Your task to perform on an android device: Search for seafood restaurants on Google Maps Image 0: 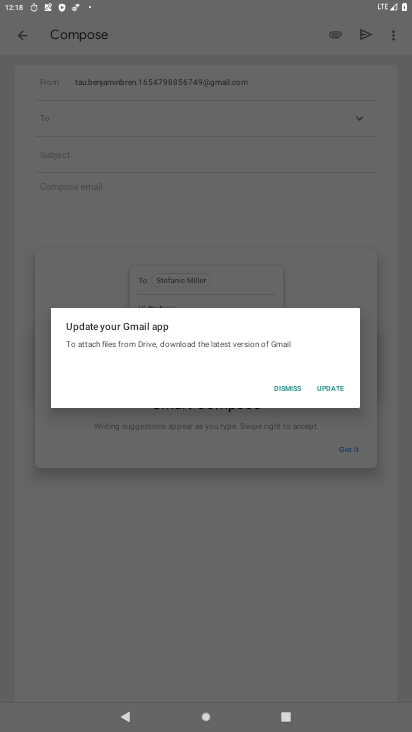
Step 0: press home button
Your task to perform on an android device: Search for seafood restaurants on Google Maps Image 1: 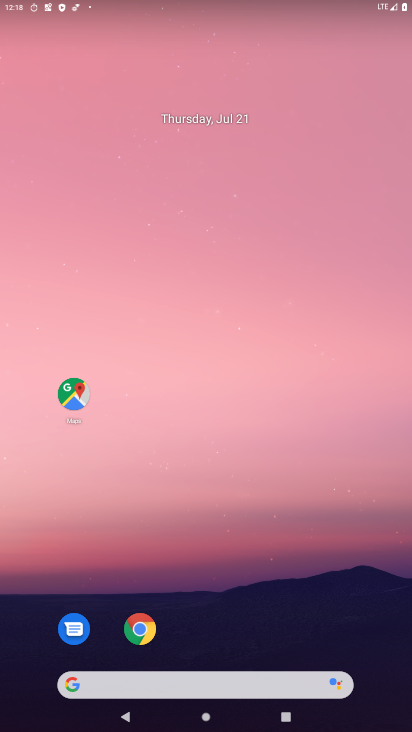
Step 1: drag from (277, 695) to (327, 22)
Your task to perform on an android device: Search for seafood restaurants on Google Maps Image 2: 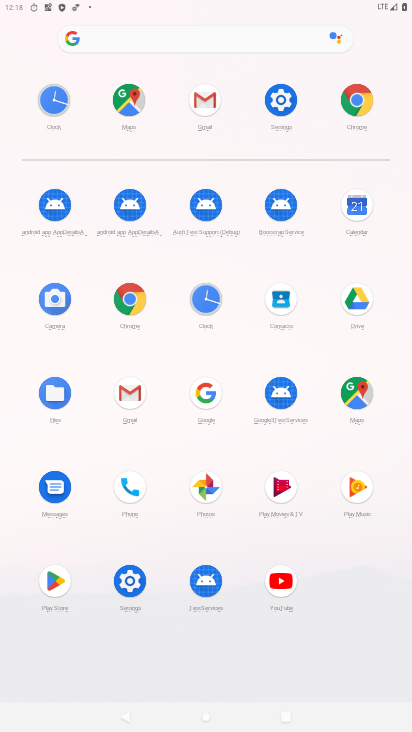
Step 2: click (345, 393)
Your task to perform on an android device: Search for seafood restaurants on Google Maps Image 3: 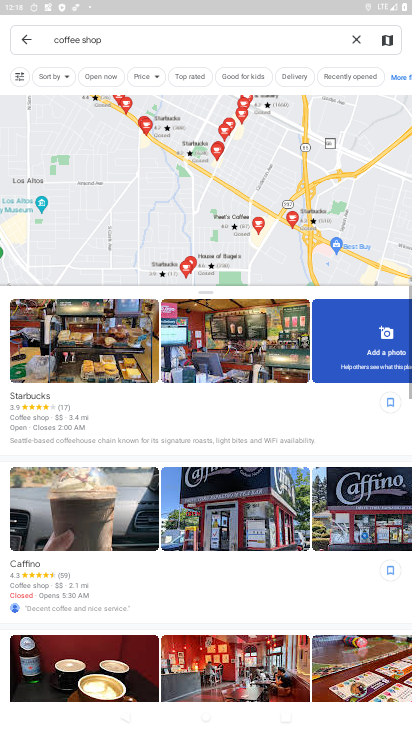
Step 3: click (352, 38)
Your task to perform on an android device: Search for seafood restaurants on Google Maps Image 4: 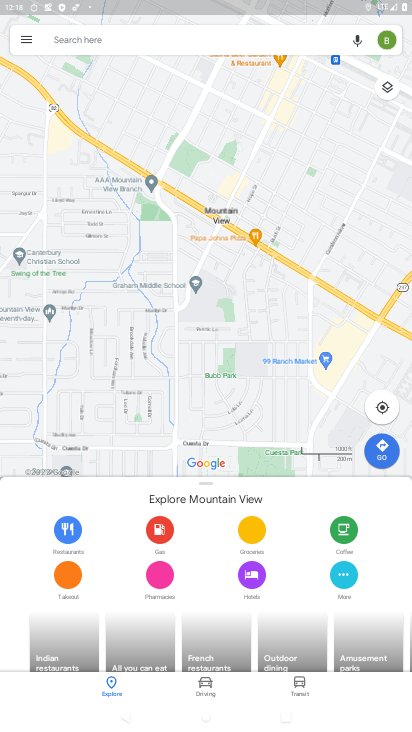
Step 4: click (205, 37)
Your task to perform on an android device: Search for seafood restaurants on Google Maps Image 5: 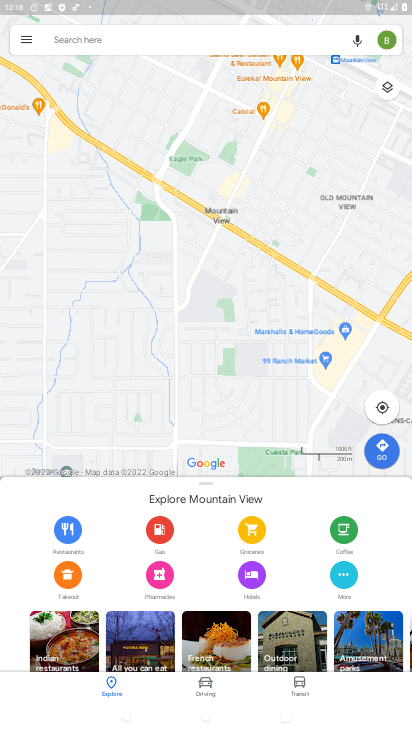
Step 5: click (205, 37)
Your task to perform on an android device: Search for seafood restaurants on Google Maps Image 6: 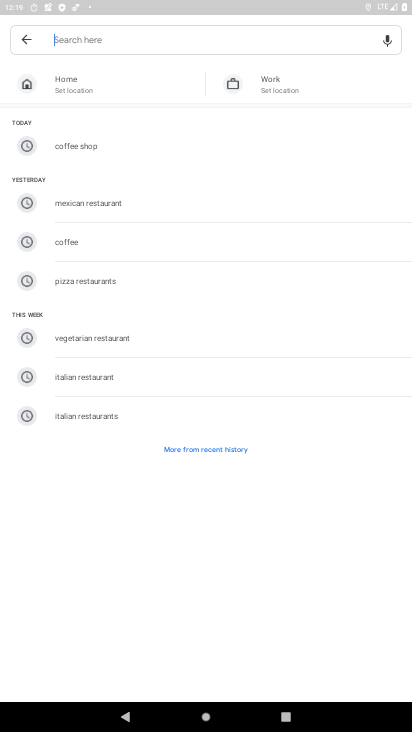
Step 6: type "seafood restaurant"
Your task to perform on an android device: Search for seafood restaurants on Google Maps Image 7: 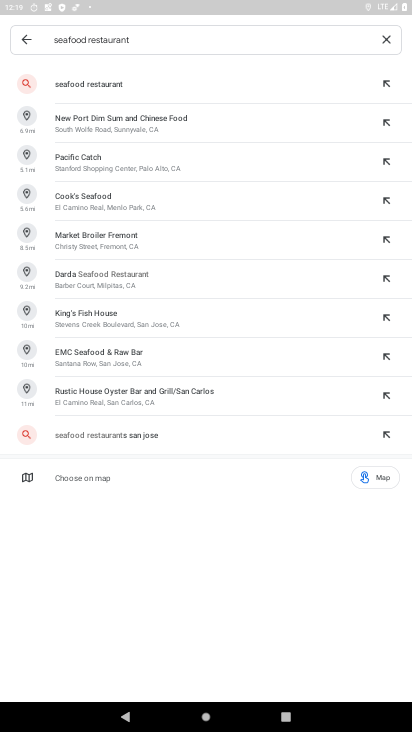
Step 7: click (182, 81)
Your task to perform on an android device: Search for seafood restaurants on Google Maps Image 8: 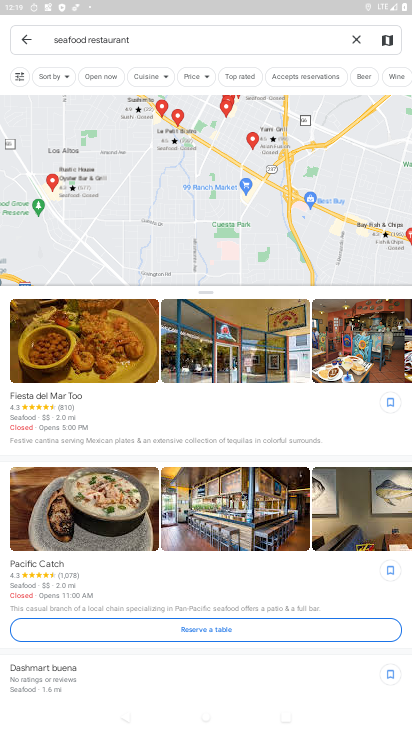
Step 8: task complete